Your task to perform on an android device: Search for seafood restaurants on Google Maps Image 0: 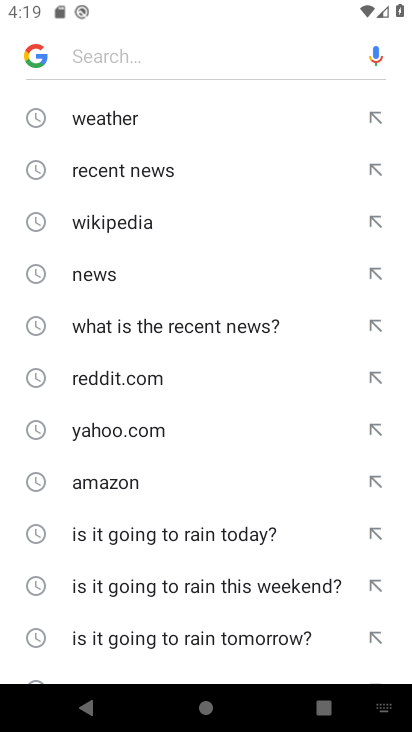
Step 0: press home button
Your task to perform on an android device: Search for seafood restaurants on Google Maps Image 1: 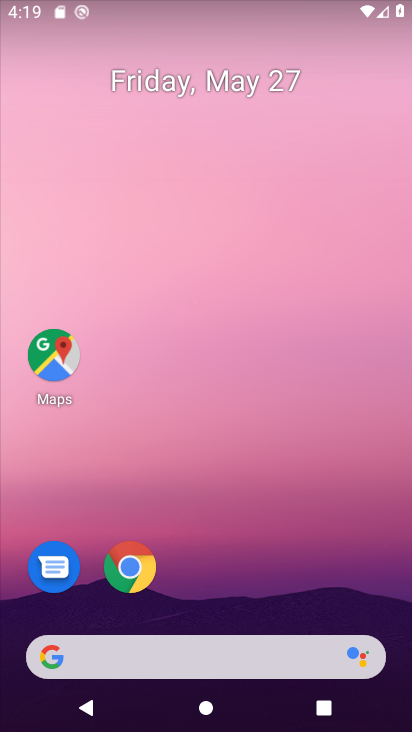
Step 1: click (61, 357)
Your task to perform on an android device: Search for seafood restaurants on Google Maps Image 2: 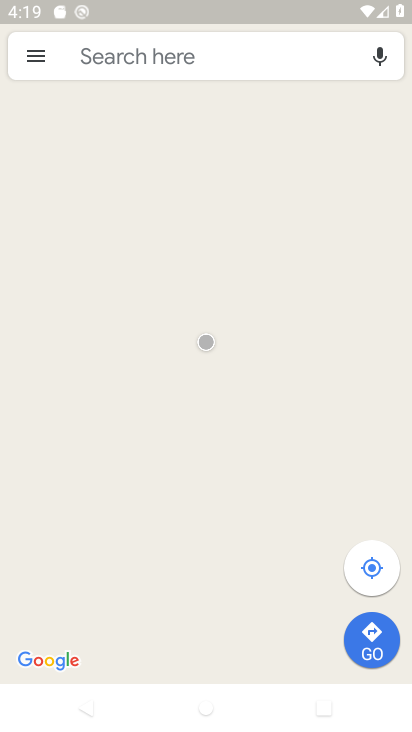
Step 2: click (171, 49)
Your task to perform on an android device: Search for seafood restaurants on Google Maps Image 3: 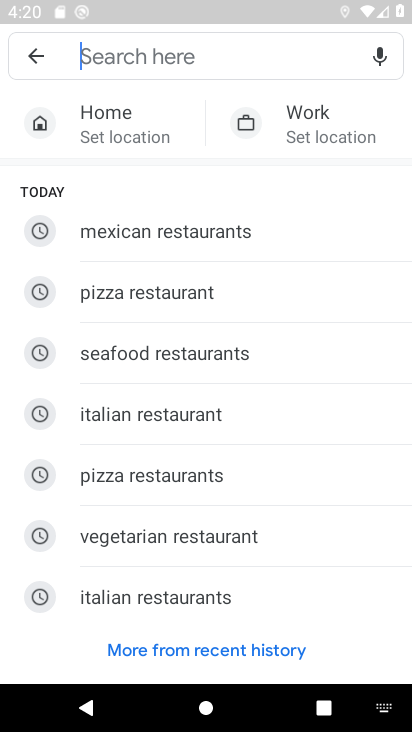
Step 3: type "seafood restaurants"
Your task to perform on an android device: Search for seafood restaurants on Google Maps Image 4: 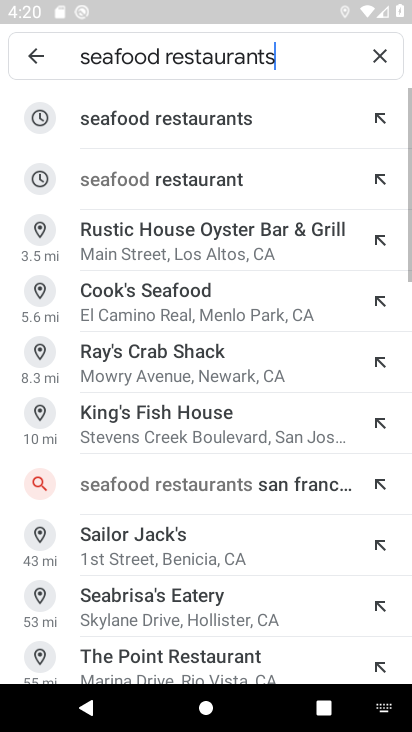
Step 4: click (167, 129)
Your task to perform on an android device: Search for seafood restaurants on Google Maps Image 5: 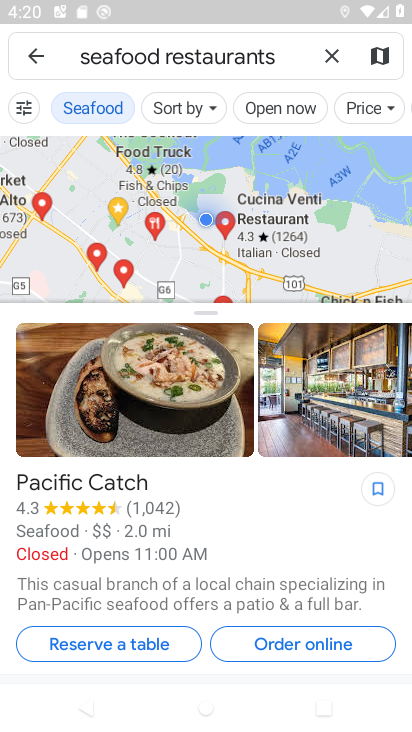
Step 5: task complete